Your task to perform on an android device: open wifi settings Image 0: 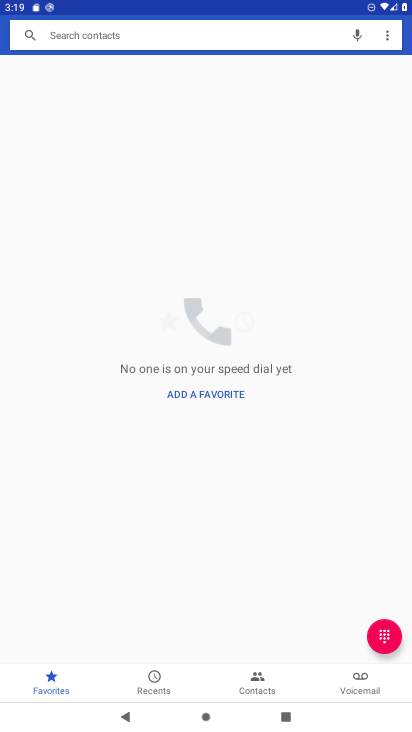
Step 0: press home button
Your task to perform on an android device: open wifi settings Image 1: 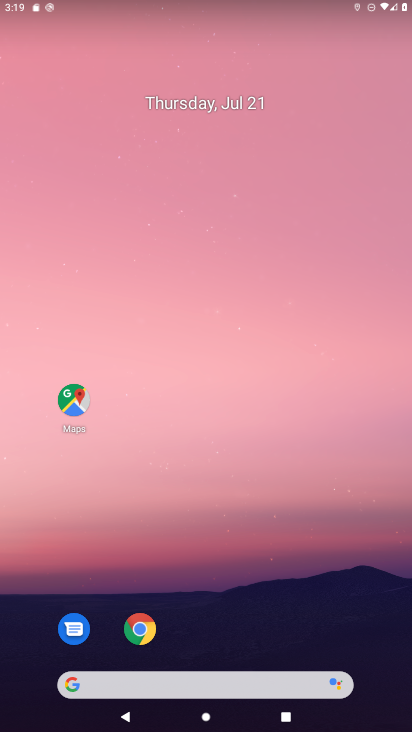
Step 1: drag from (201, 638) to (220, 93)
Your task to perform on an android device: open wifi settings Image 2: 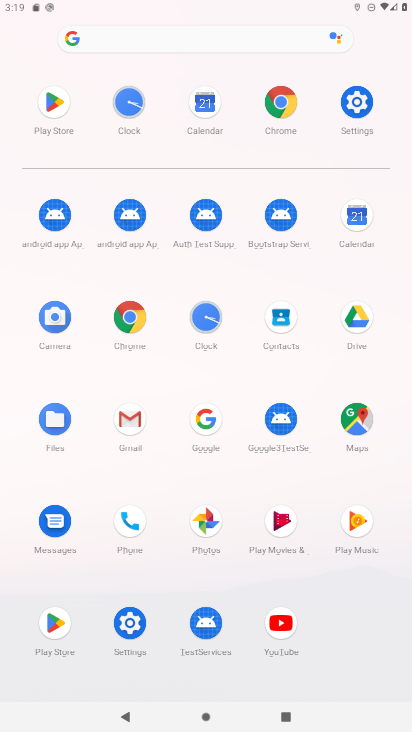
Step 2: click (130, 636)
Your task to perform on an android device: open wifi settings Image 3: 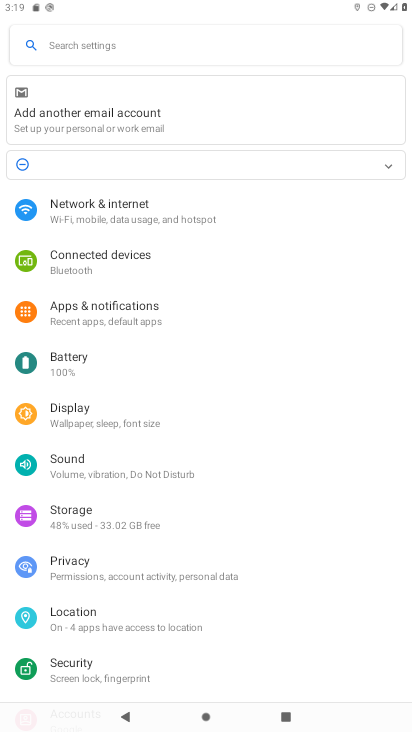
Step 3: click (156, 222)
Your task to perform on an android device: open wifi settings Image 4: 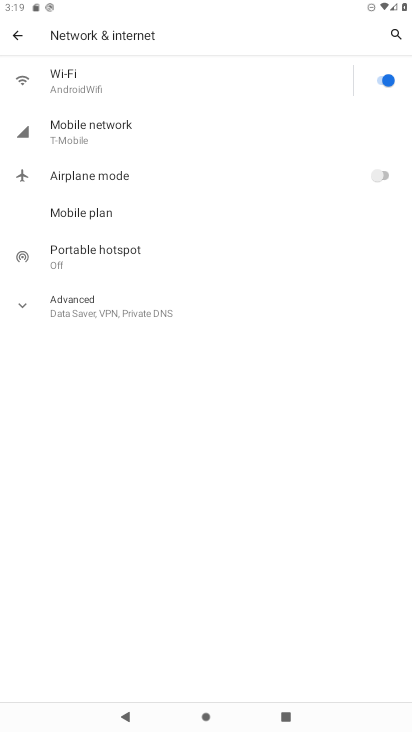
Step 4: click (139, 84)
Your task to perform on an android device: open wifi settings Image 5: 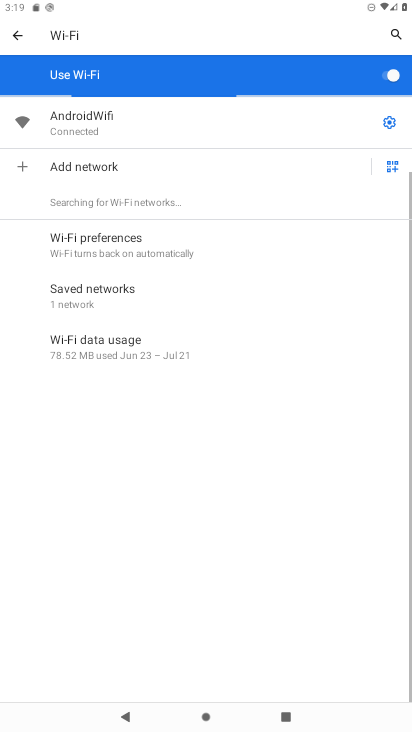
Step 5: task complete